Your task to perform on an android device: Is it going to rain this weekend? Image 0: 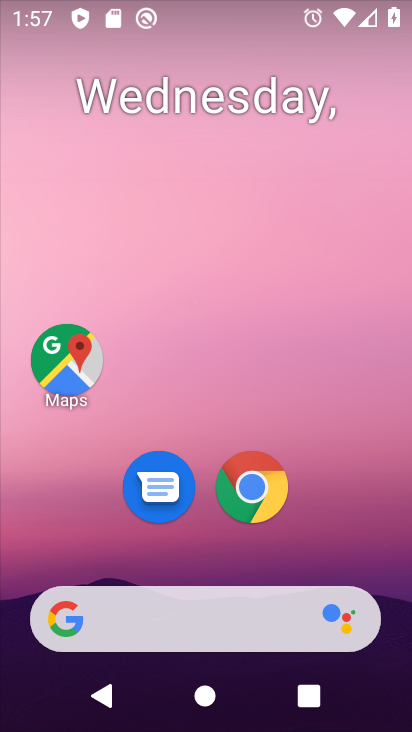
Step 0: drag from (394, 614) to (287, 108)
Your task to perform on an android device: Is it going to rain this weekend? Image 1: 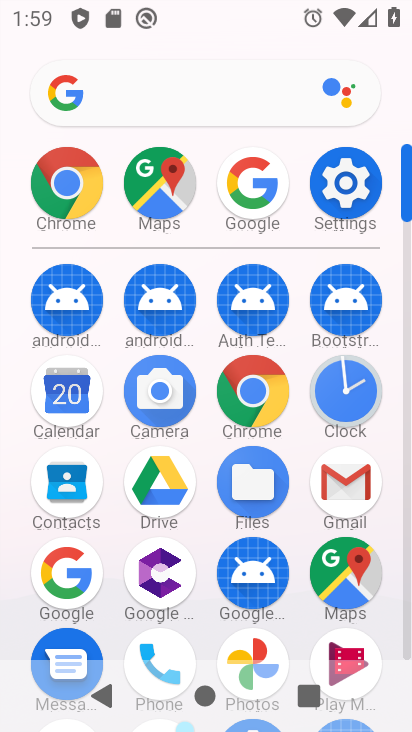
Step 1: task complete